Your task to perform on an android device: View the shopping cart on amazon. Image 0: 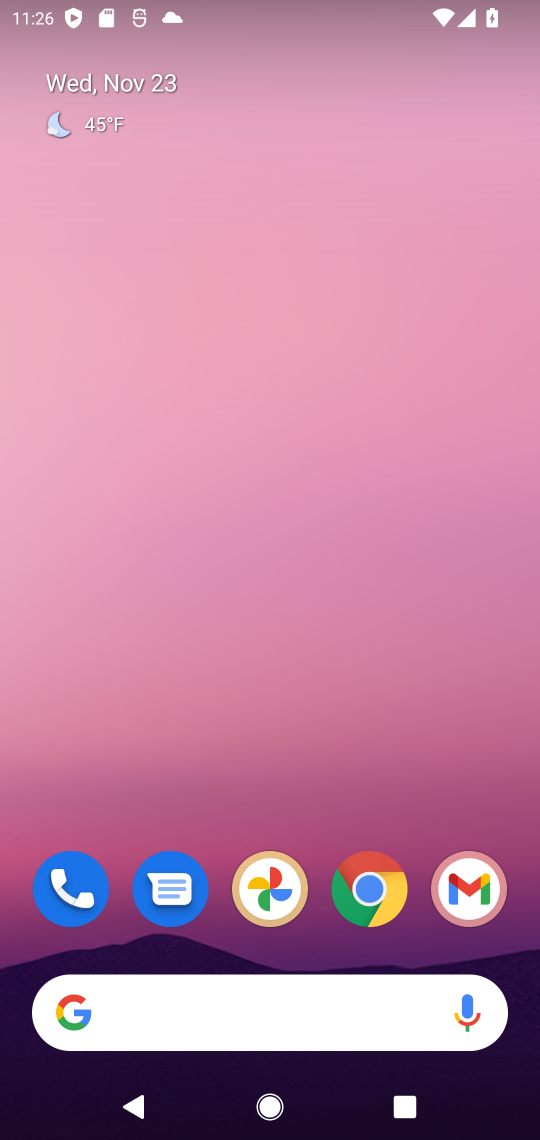
Step 0: click (378, 890)
Your task to perform on an android device: View the shopping cart on amazon. Image 1: 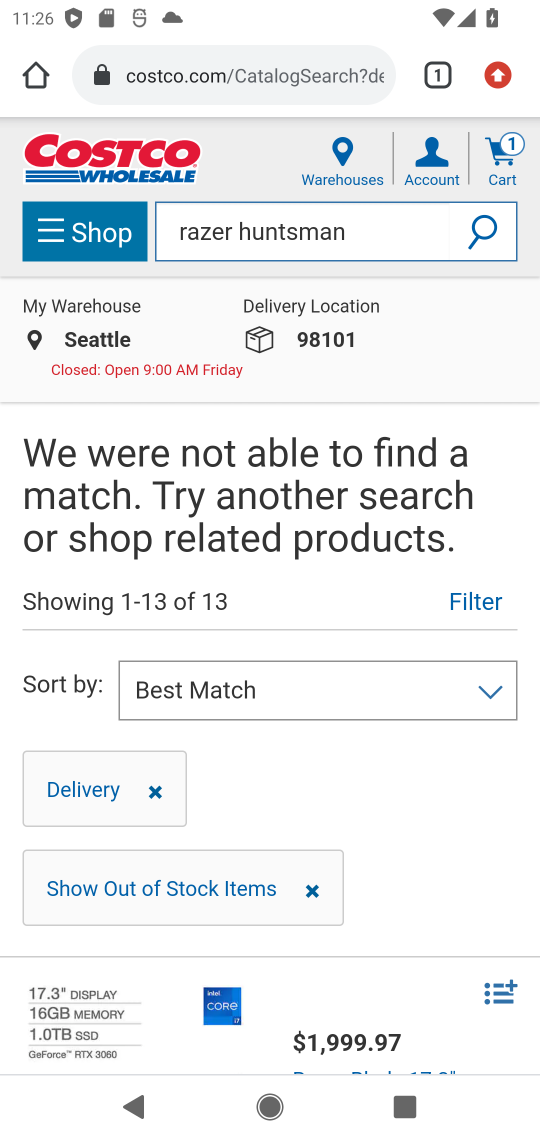
Step 1: click (246, 72)
Your task to perform on an android device: View the shopping cart on amazon. Image 2: 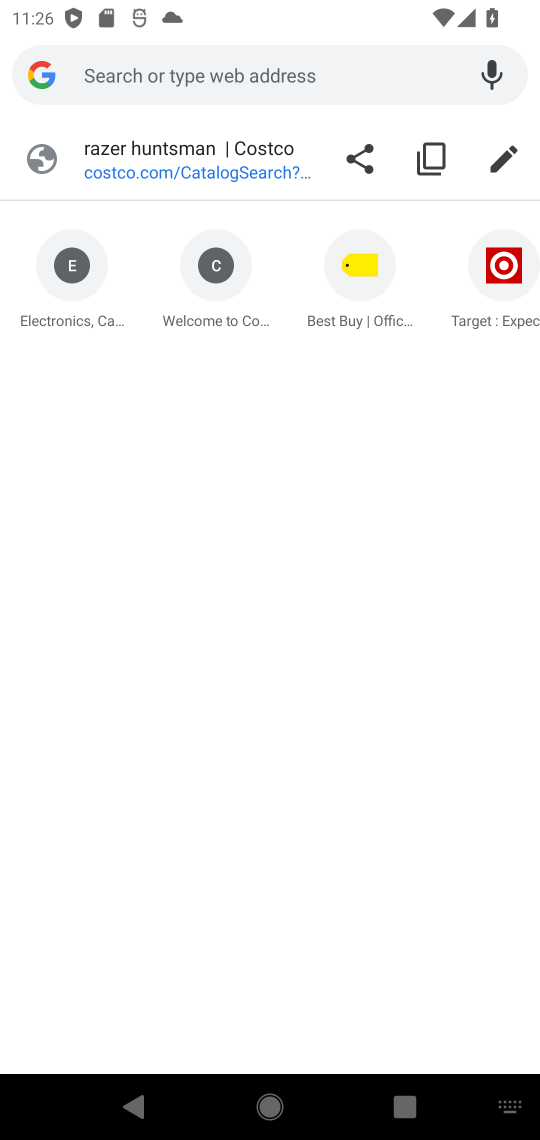
Step 2: type "amazon.com"
Your task to perform on an android device: View the shopping cart on amazon. Image 3: 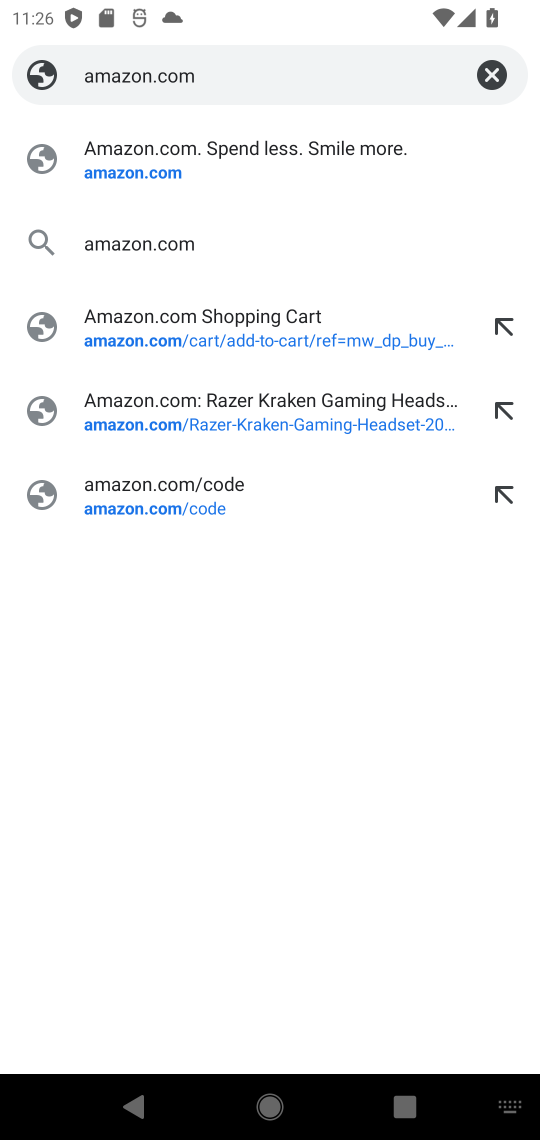
Step 3: click (109, 172)
Your task to perform on an android device: View the shopping cart on amazon. Image 4: 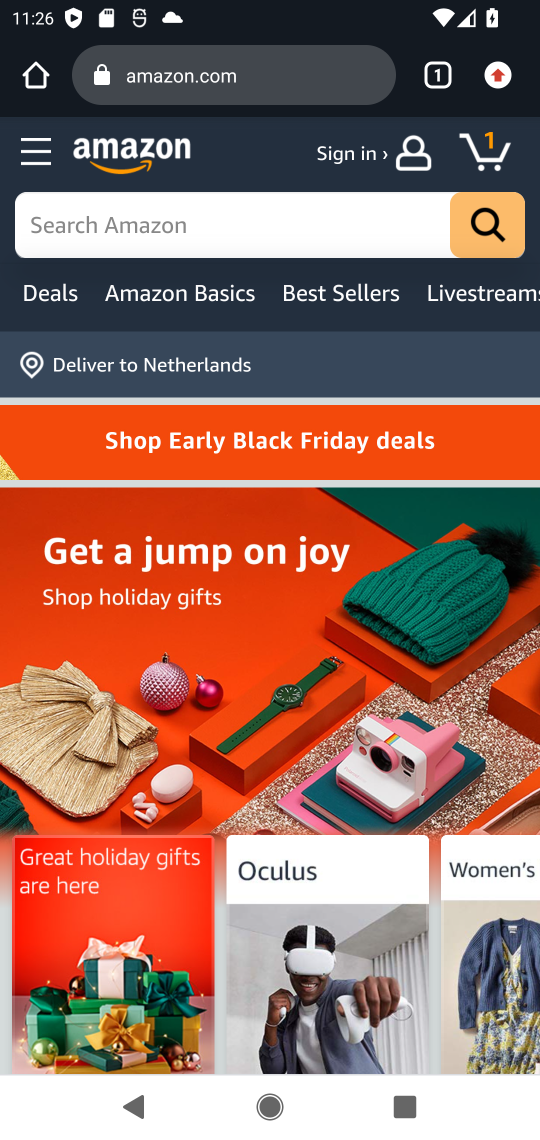
Step 4: click (483, 151)
Your task to perform on an android device: View the shopping cart on amazon. Image 5: 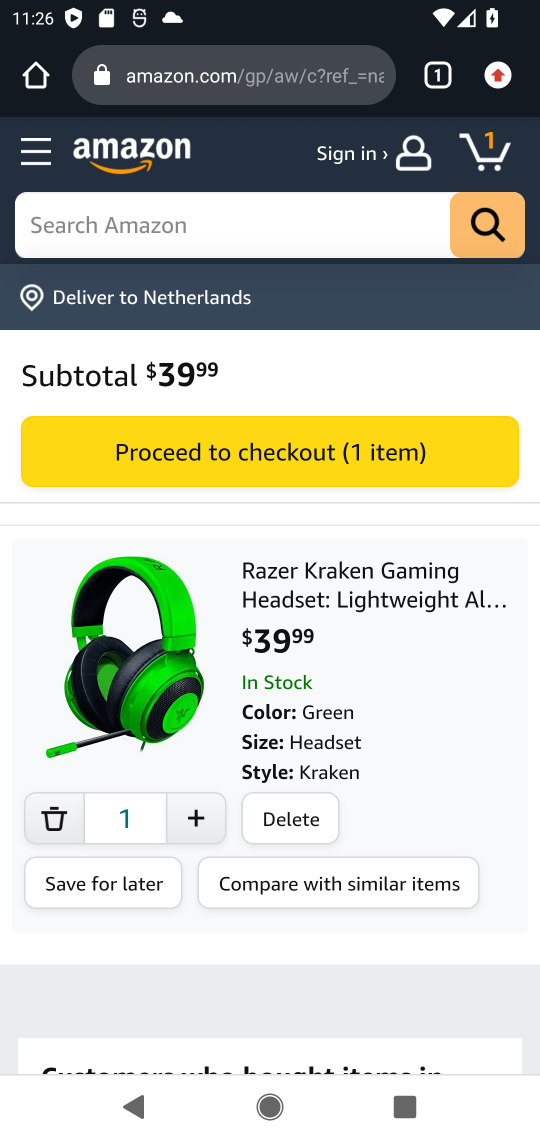
Step 5: task complete